Your task to perform on an android device: Go to Amazon Image 0: 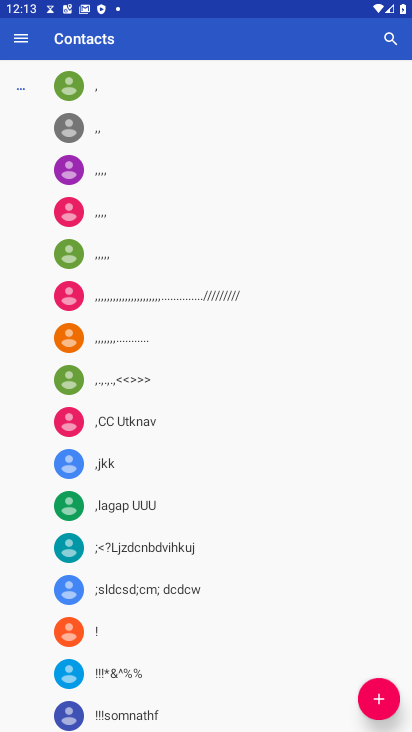
Step 0: press back button
Your task to perform on an android device: Go to Amazon Image 1: 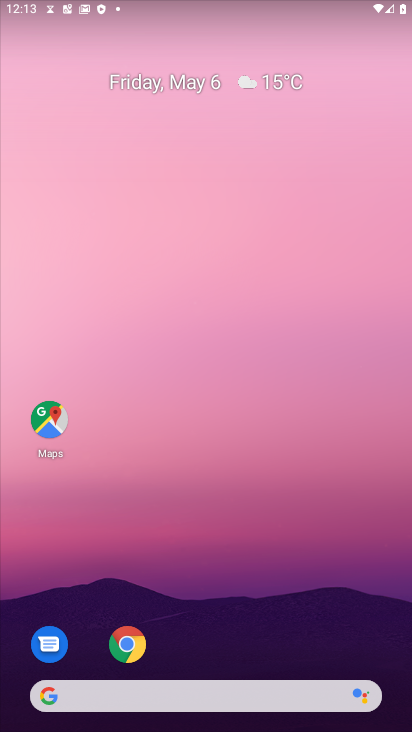
Step 1: drag from (317, 561) to (317, 14)
Your task to perform on an android device: Go to Amazon Image 2: 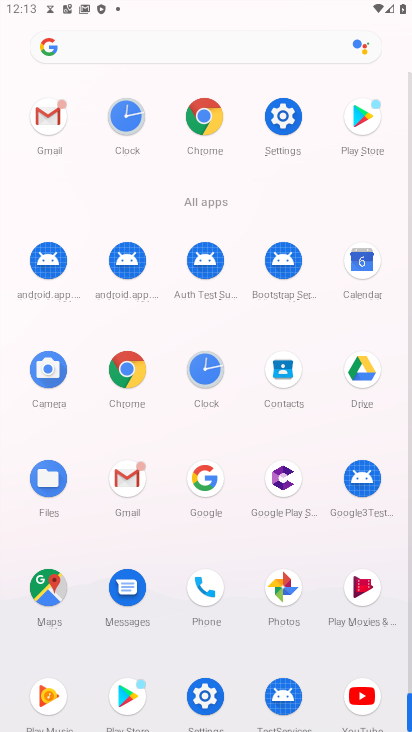
Step 2: drag from (15, 570) to (6, 235)
Your task to perform on an android device: Go to Amazon Image 3: 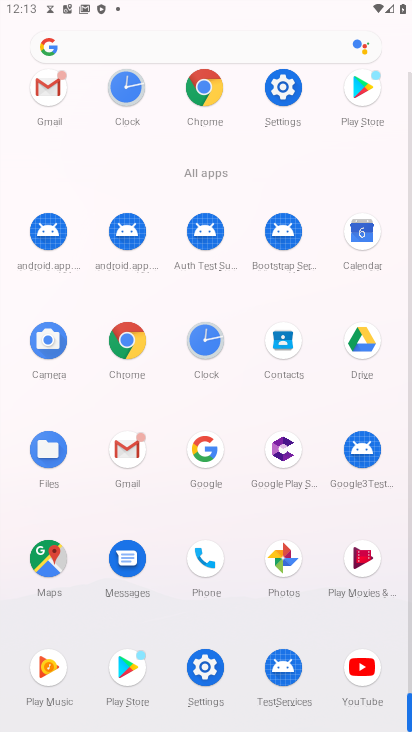
Step 3: click (128, 334)
Your task to perform on an android device: Go to Amazon Image 4: 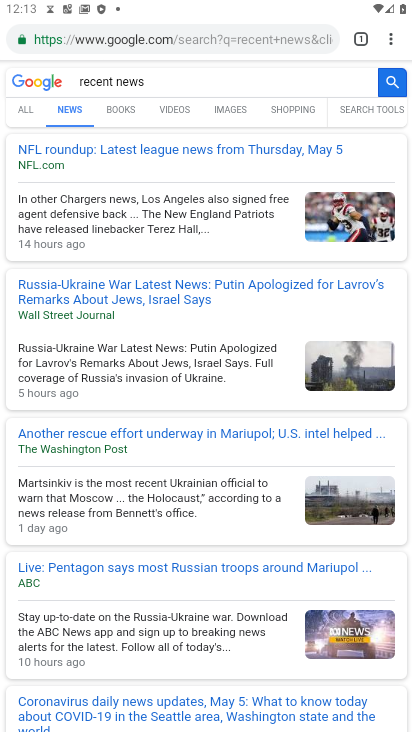
Step 4: click (152, 37)
Your task to perform on an android device: Go to Amazon Image 5: 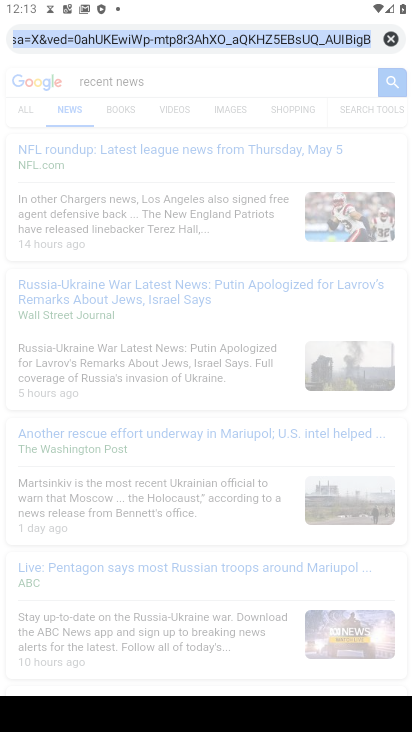
Step 5: click (393, 36)
Your task to perform on an android device: Go to Amazon Image 6: 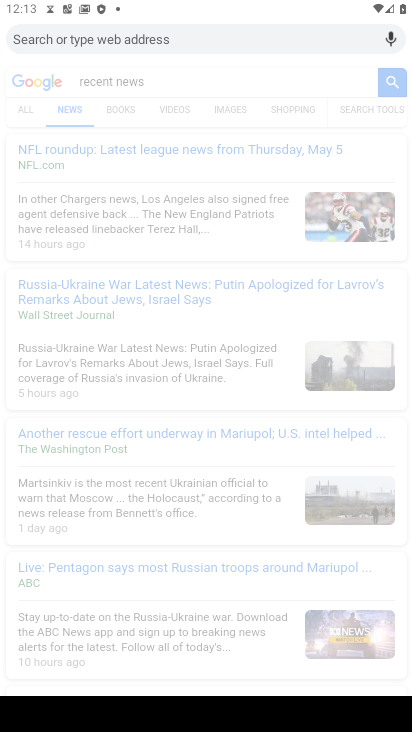
Step 6: type "Amazon"
Your task to perform on an android device: Go to Amazon Image 7: 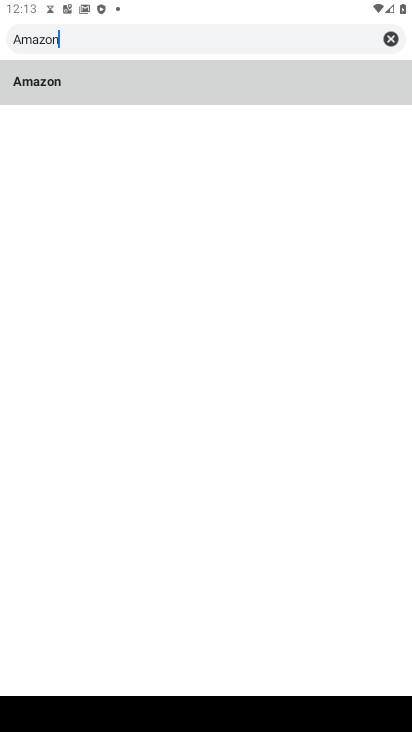
Step 7: type ""
Your task to perform on an android device: Go to Amazon Image 8: 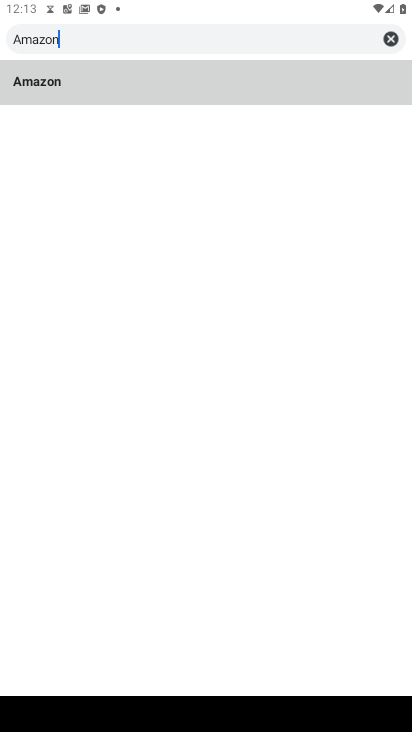
Step 8: click (96, 81)
Your task to perform on an android device: Go to Amazon Image 9: 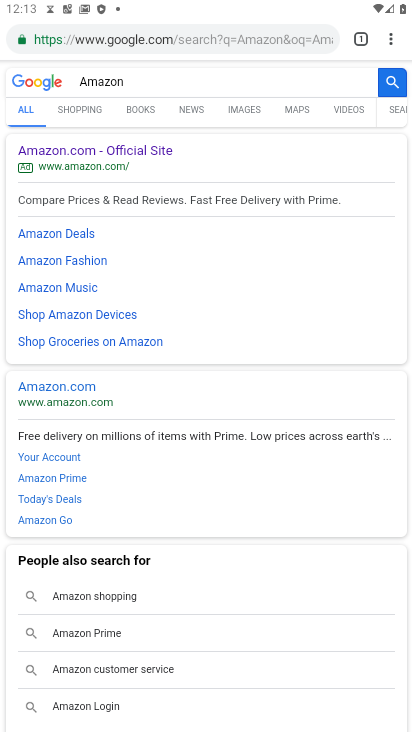
Step 9: click (102, 151)
Your task to perform on an android device: Go to Amazon Image 10: 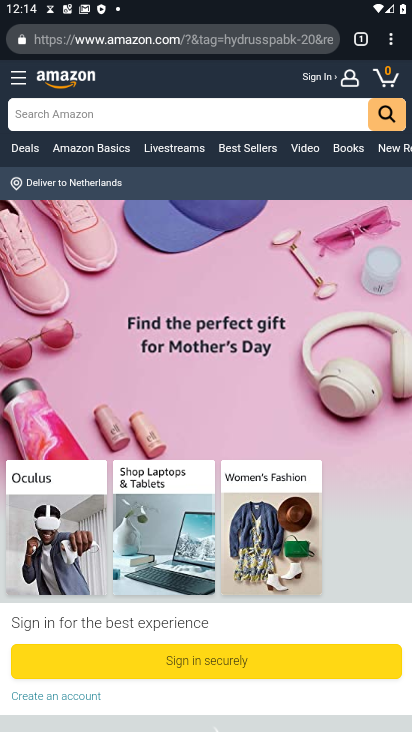
Step 10: task complete